Your task to perform on an android device: open chrome privacy settings Image 0: 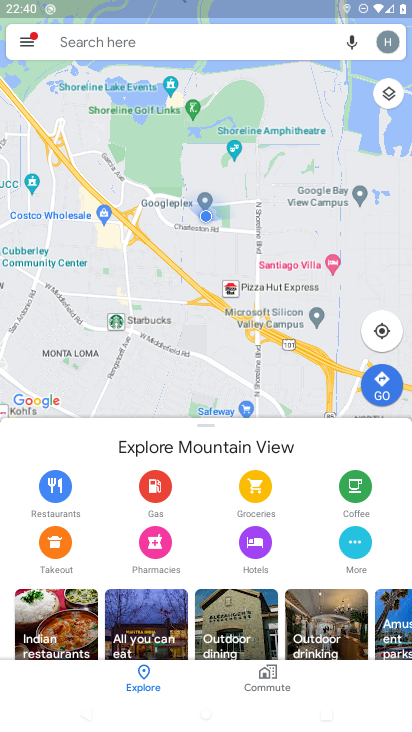
Step 0: press home button
Your task to perform on an android device: open chrome privacy settings Image 1: 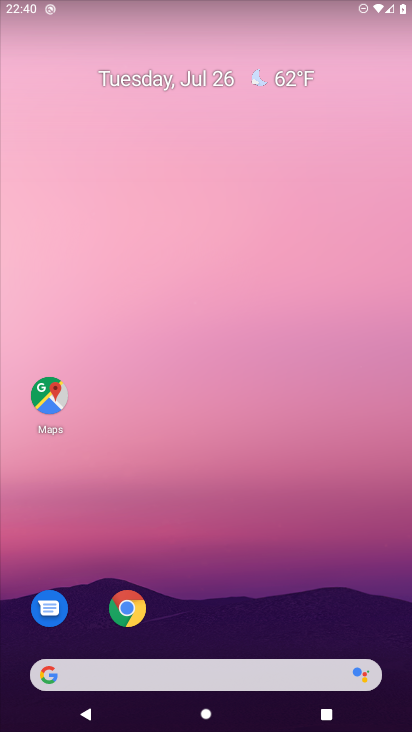
Step 1: drag from (38, 714) to (194, 36)
Your task to perform on an android device: open chrome privacy settings Image 2: 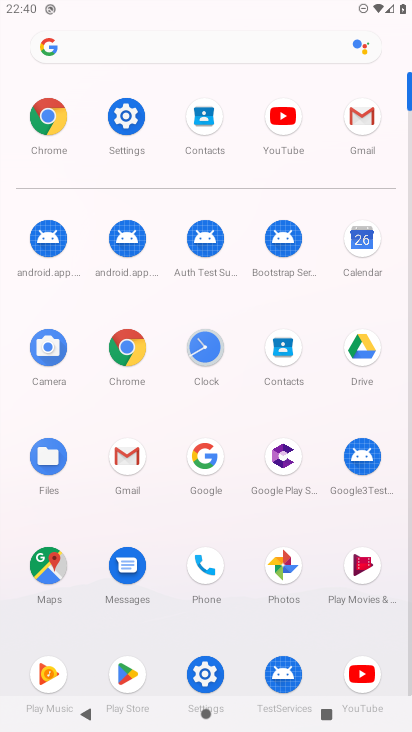
Step 2: click (202, 662)
Your task to perform on an android device: open chrome privacy settings Image 3: 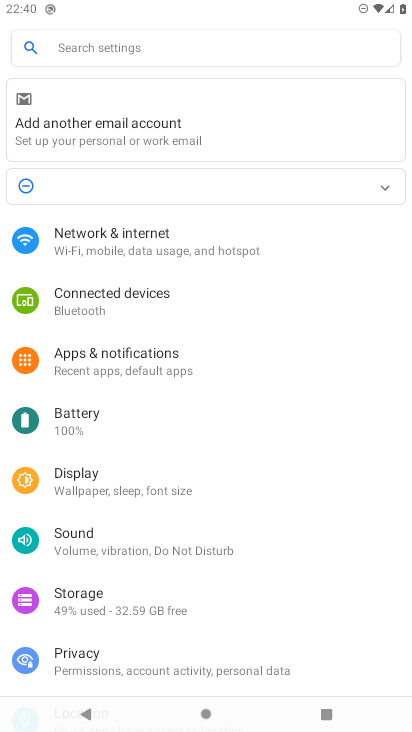
Step 3: press home button
Your task to perform on an android device: open chrome privacy settings Image 4: 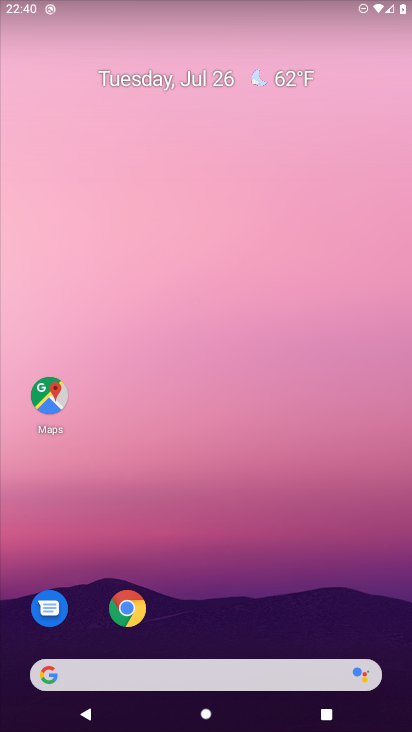
Step 4: click (133, 606)
Your task to perform on an android device: open chrome privacy settings Image 5: 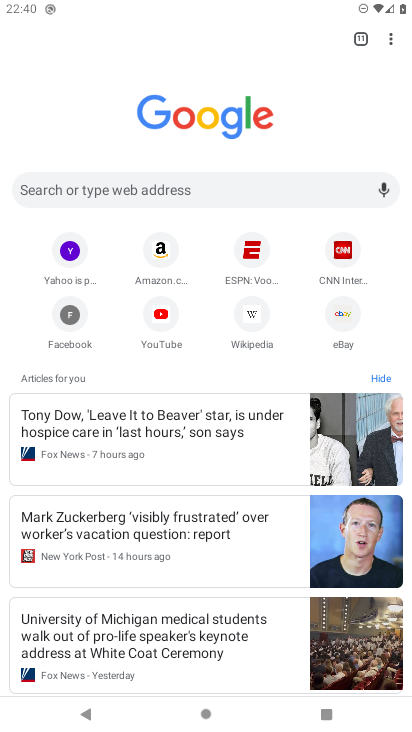
Step 5: click (391, 42)
Your task to perform on an android device: open chrome privacy settings Image 6: 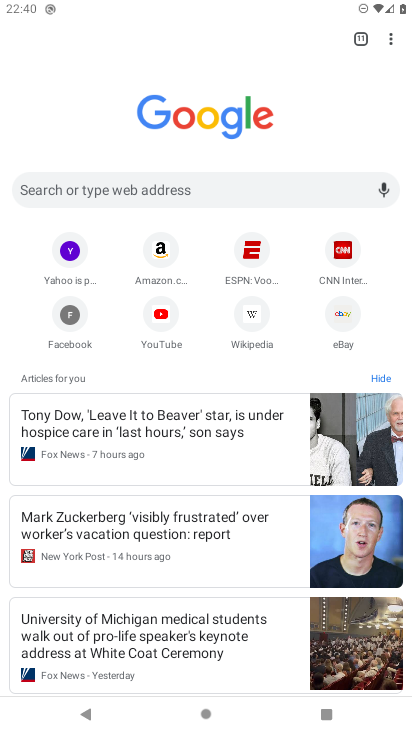
Step 6: click (388, 42)
Your task to perform on an android device: open chrome privacy settings Image 7: 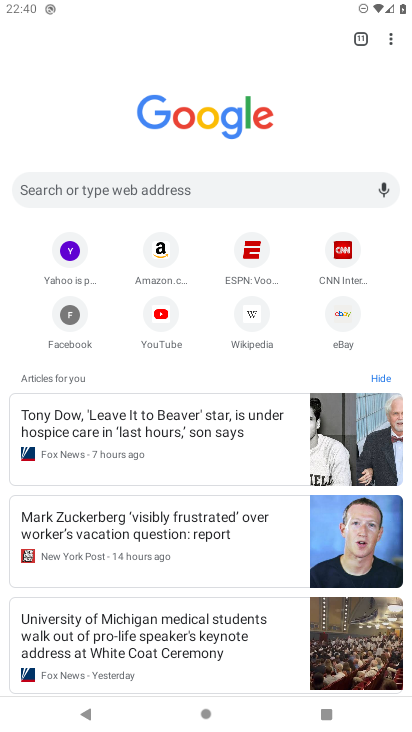
Step 7: click (388, 42)
Your task to perform on an android device: open chrome privacy settings Image 8: 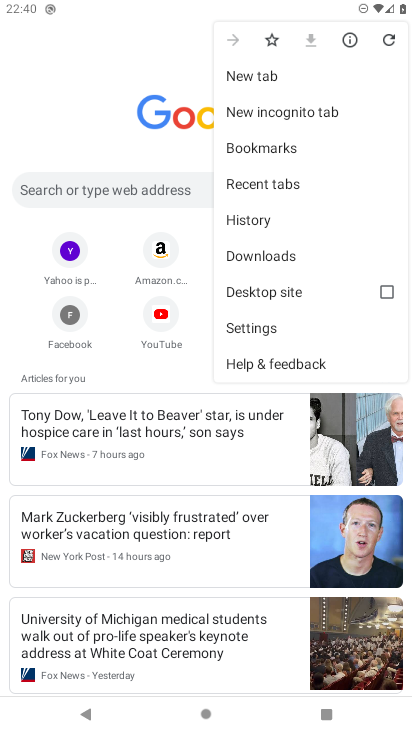
Step 8: click (242, 327)
Your task to perform on an android device: open chrome privacy settings Image 9: 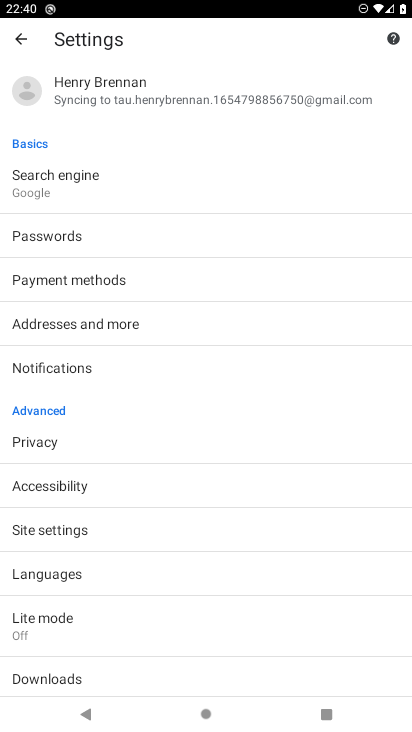
Step 9: click (46, 424)
Your task to perform on an android device: open chrome privacy settings Image 10: 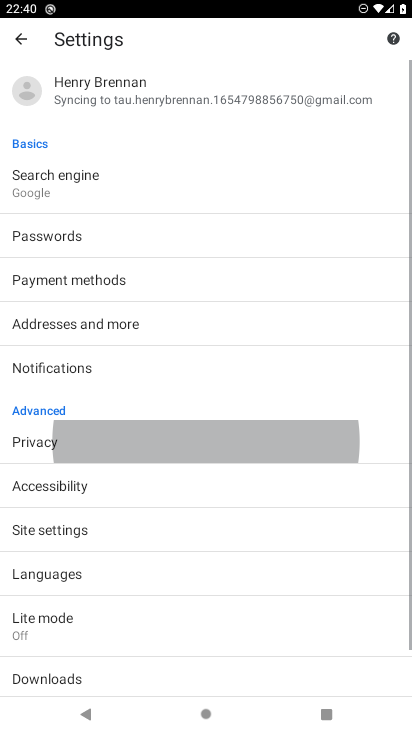
Step 10: click (41, 434)
Your task to perform on an android device: open chrome privacy settings Image 11: 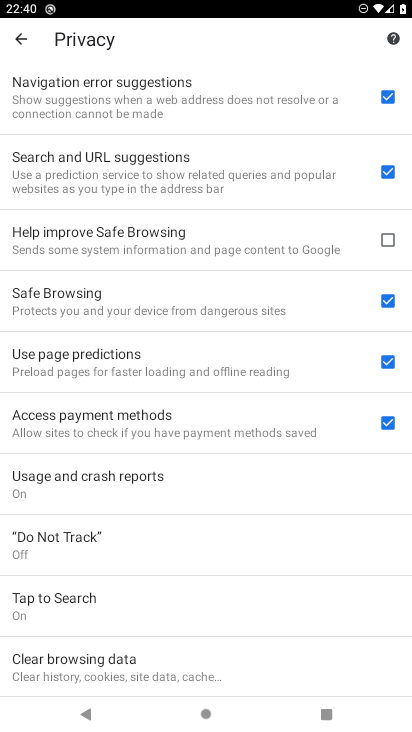
Step 11: task complete